Your task to perform on an android device: Open location settings Image 0: 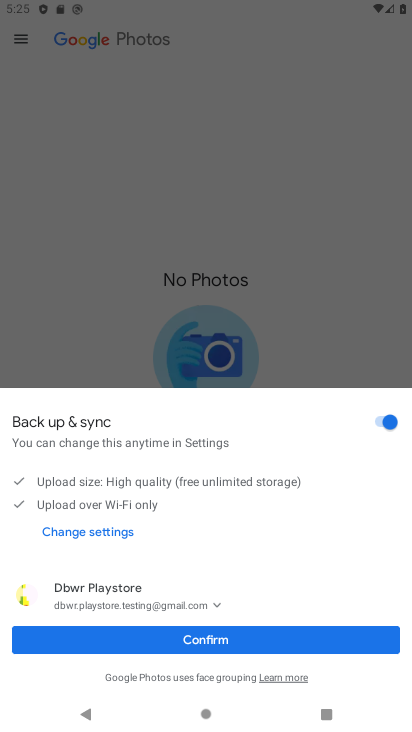
Step 0: click (201, 247)
Your task to perform on an android device: Open location settings Image 1: 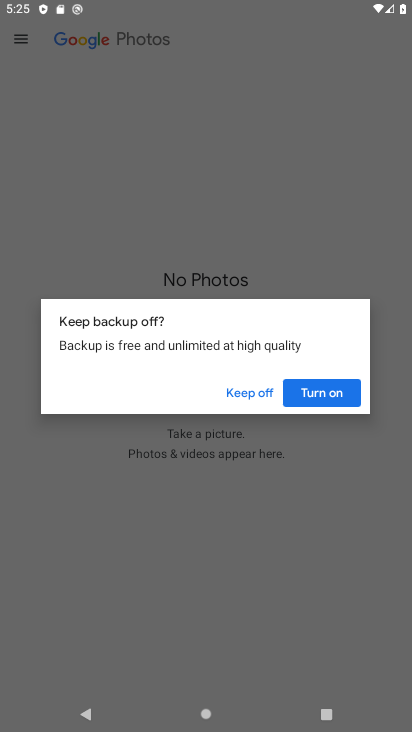
Step 1: click (246, 388)
Your task to perform on an android device: Open location settings Image 2: 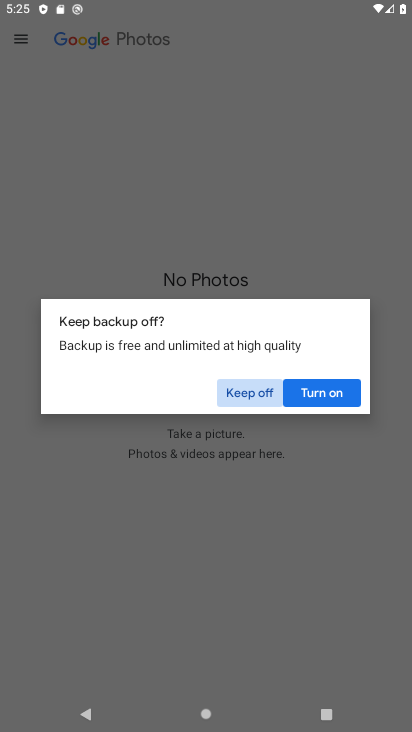
Step 2: click (246, 388)
Your task to perform on an android device: Open location settings Image 3: 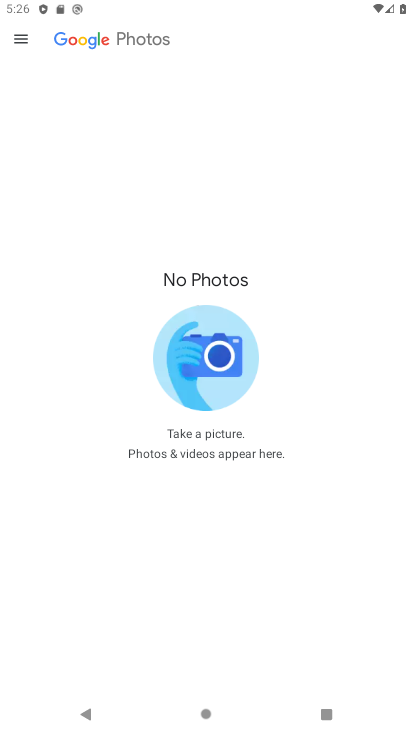
Step 3: press home button
Your task to perform on an android device: Open location settings Image 4: 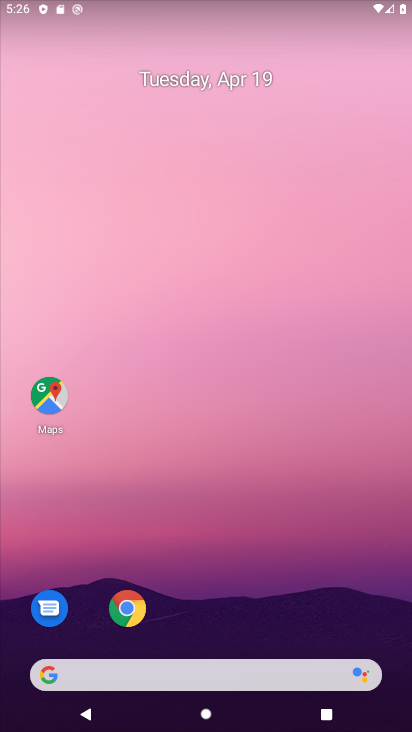
Step 4: drag from (281, 511) to (205, 18)
Your task to perform on an android device: Open location settings Image 5: 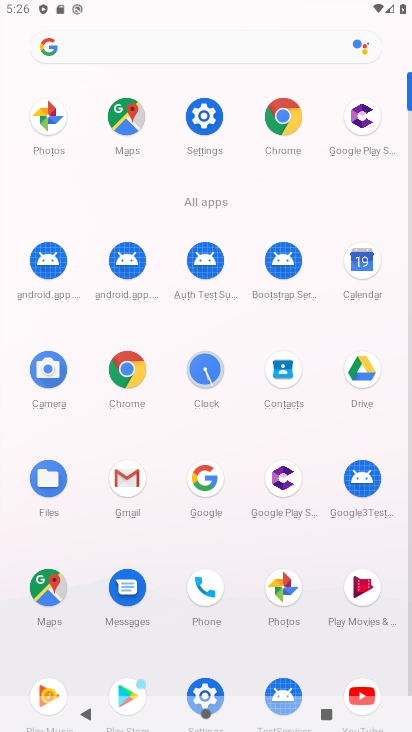
Step 5: click (61, 593)
Your task to perform on an android device: Open location settings Image 6: 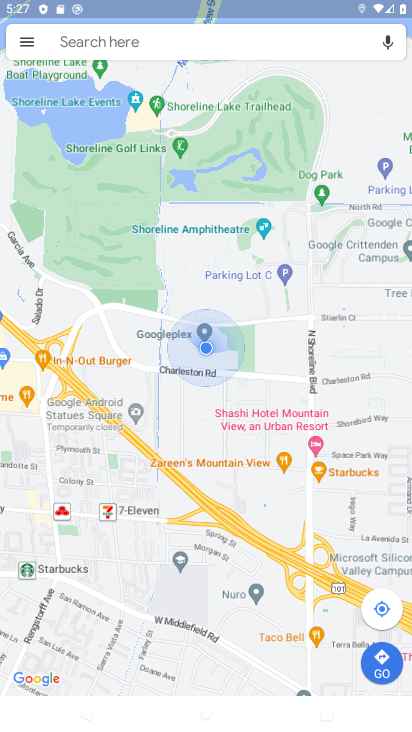
Step 6: press home button
Your task to perform on an android device: Open location settings Image 7: 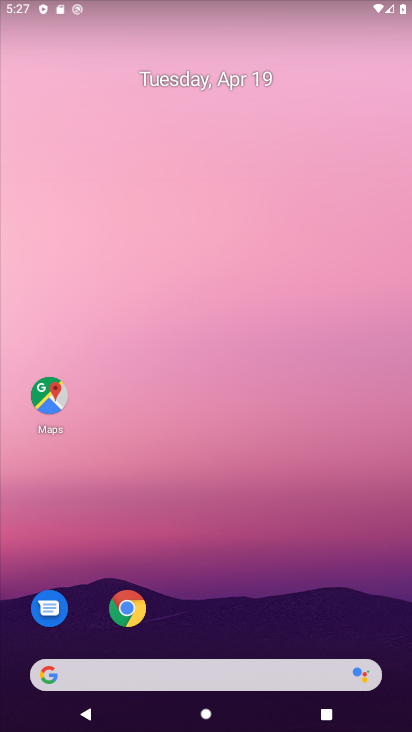
Step 7: click (191, 580)
Your task to perform on an android device: Open location settings Image 8: 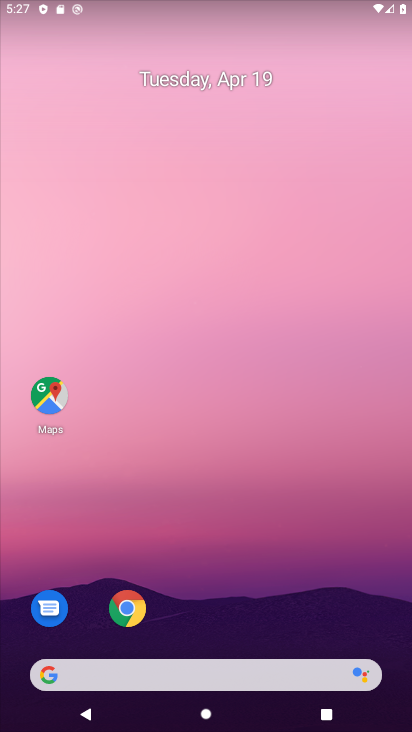
Step 8: click (222, 603)
Your task to perform on an android device: Open location settings Image 9: 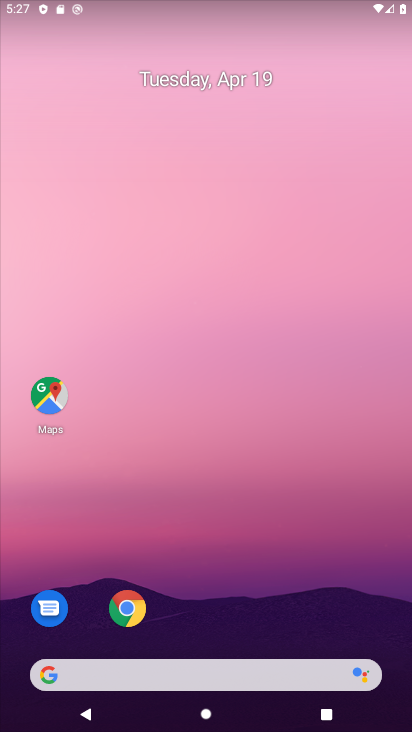
Step 9: drag from (241, 600) to (181, 1)
Your task to perform on an android device: Open location settings Image 10: 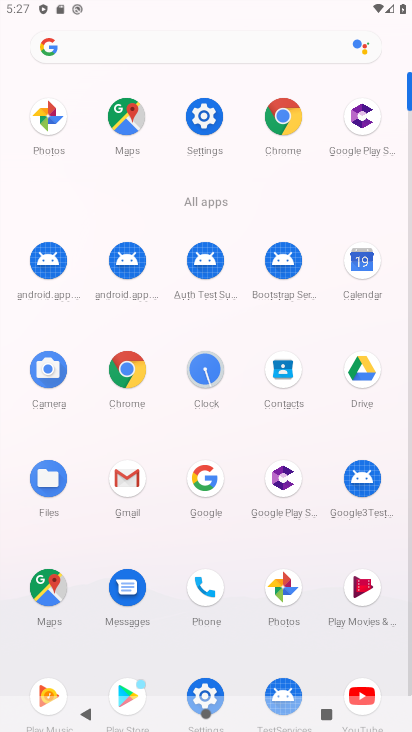
Step 10: click (215, 129)
Your task to perform on an android device: Open location settings Image 11: 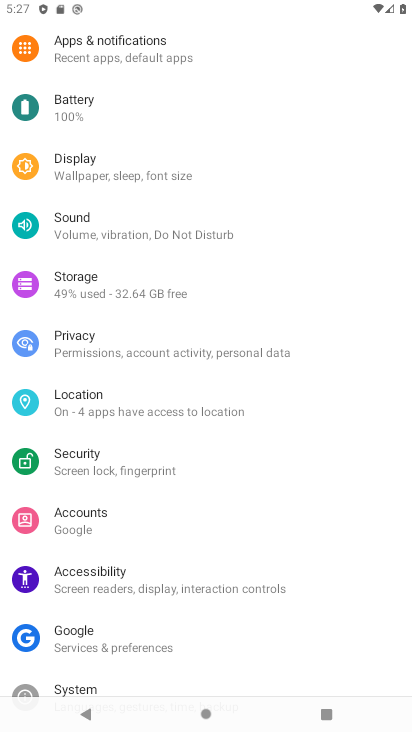
Step 11: click (86, 404)
Your task to perform on an android device: Open location settings Image 12: 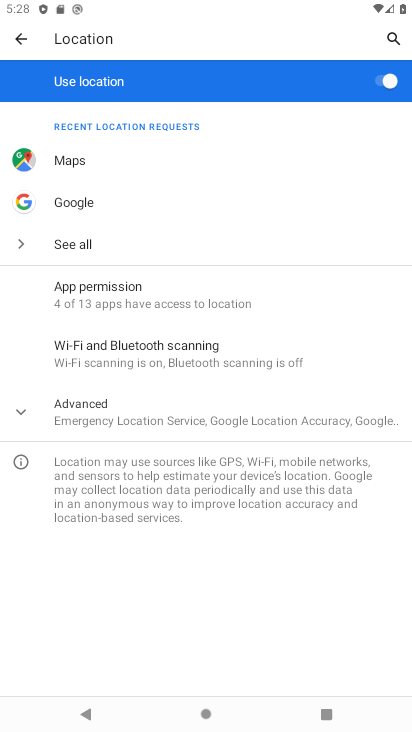
Step 12: task complete